Your task to perform on an android device: move an email to a new category in the gmail app Image 0: 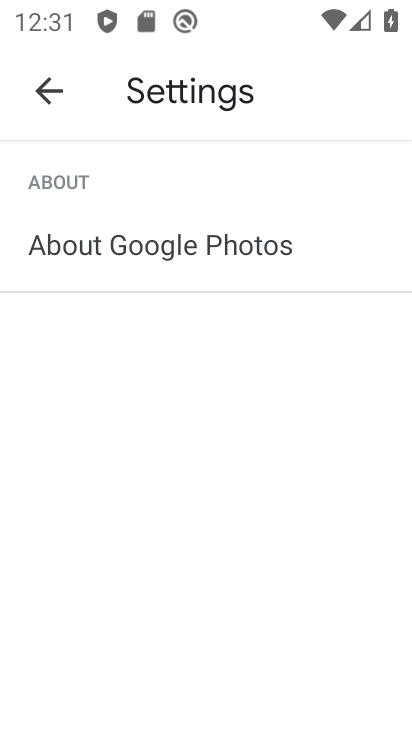
Step 0: press home button
Your task to perform on an android device: move an email to a new category in the gmail app Image 1: 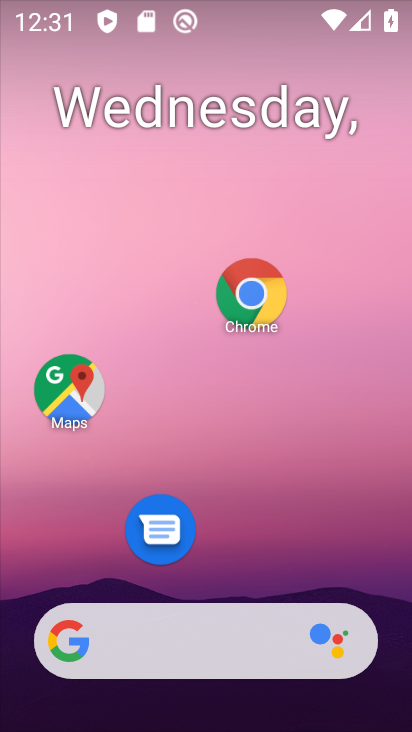
Step 1: drag from (293, 338) to (302, 273)
Your task to perform on an android device: move an email to a new category in the gmail app Image 2: 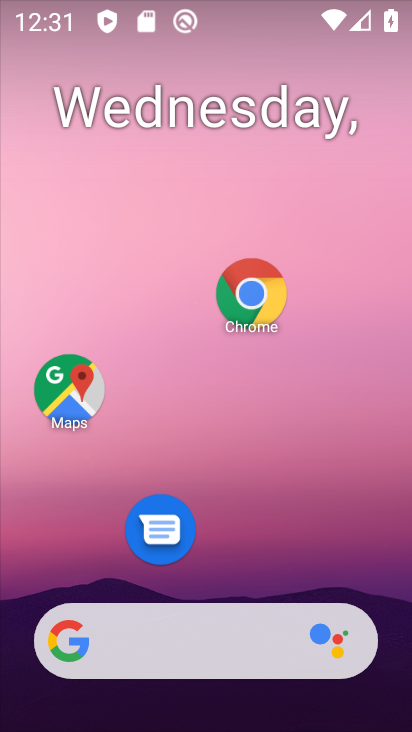
Step 2: drag from (199, 551) to (112, 35)
Your task to perform on an android device: move an email to a new category in the gmail app Image 3: 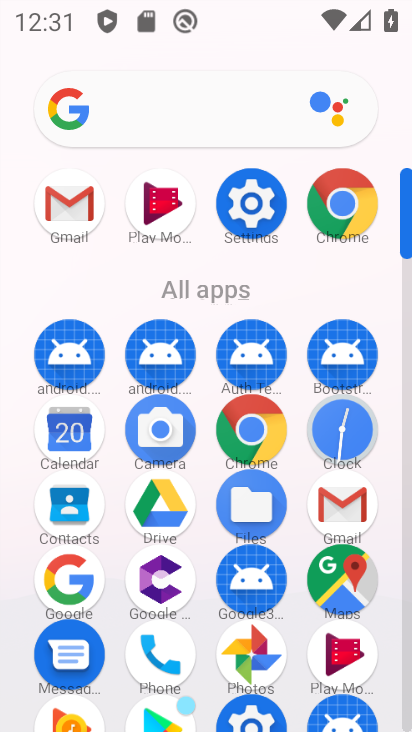
Step 3: click (355, 511)
Your task to perform on an android device: move an email to a new category in the gmail app Image 4: 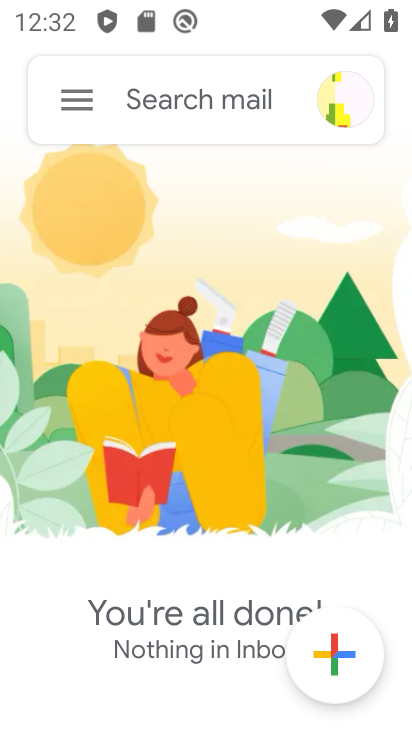
Step 4: click (66, 106)
Your task to perform on an android device: move an email to a new category in the gmail app Image 5: 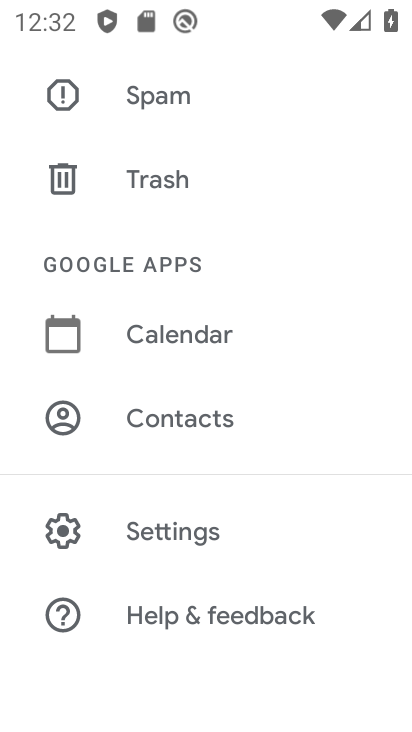
Step 5: drag from (240, 357) to (270, 566)
Your task to perform on an android device: move an email to a new category in the gmail app Image 6: 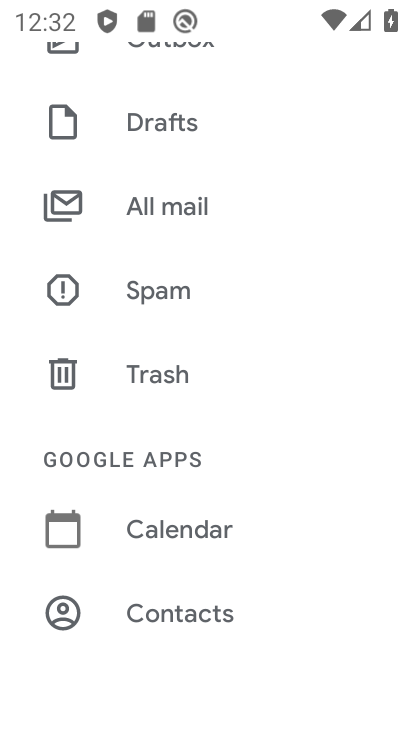
Step 6: click (193, 210)
Your task to perform on an android device: move an email to a new category in the gmail app Image 7: 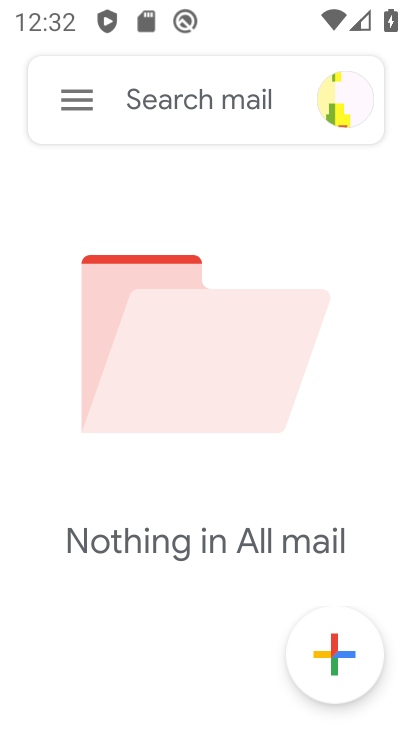
Step 7: task complete